Your task to perform on an android device: check out phone information Image 0: 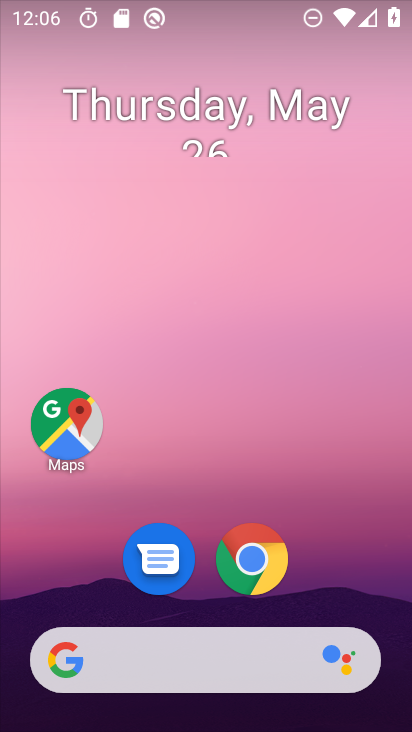
Step 0: drag from (342, 564) to (368, 250)
Your task to perform on an android device: check out phone information Image 1: 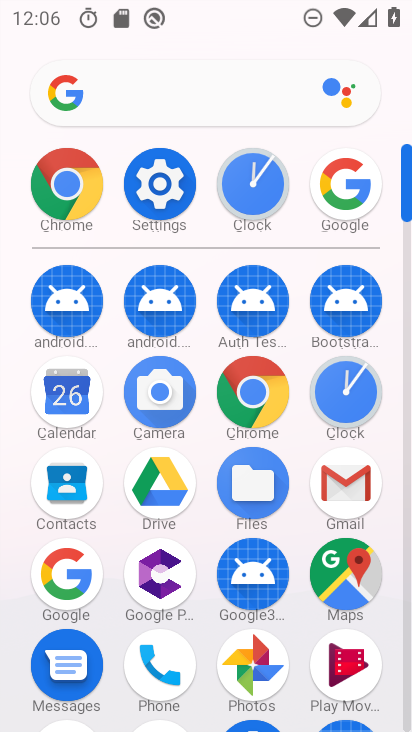
Step 1: drag from (186, 597) to (186, 303)
Your task to perform on an android device: check out phone information Image 2: 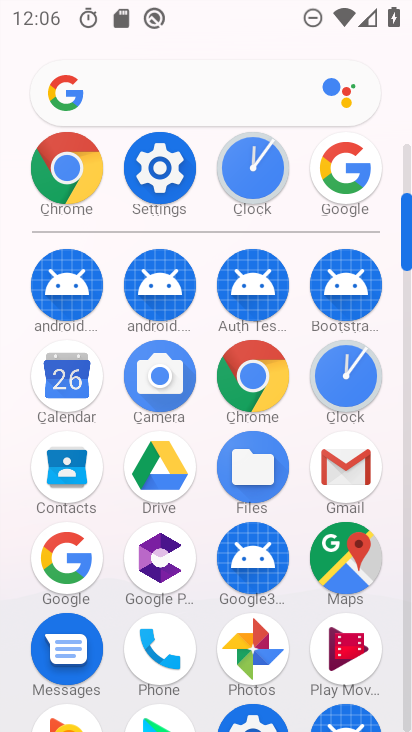
Step 2: click (148, 632)
Your task to perform on an android device: check out phone information Image 3: 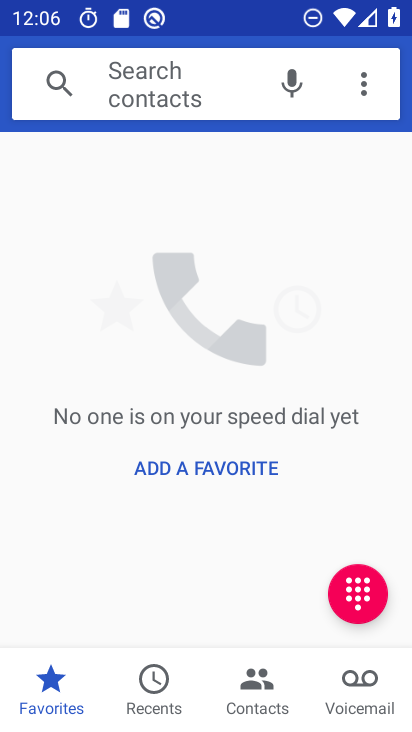
Step 3: click (358, 93)
Your task to perform on an android device: check out phone information Image 4: 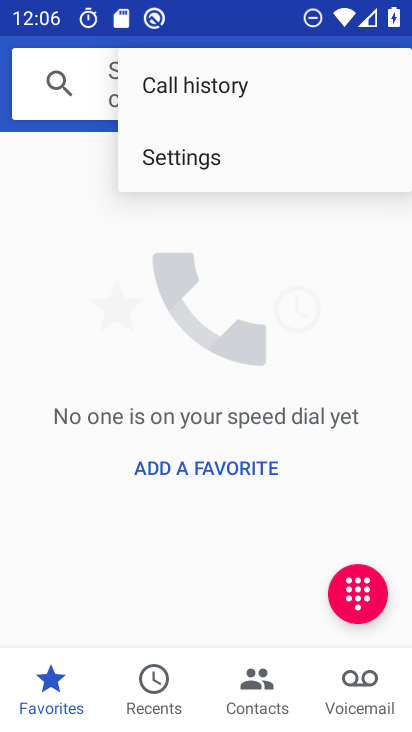
Step 4: click (199, 164)
Your task to perform on an android device: check out phone information Image 5: 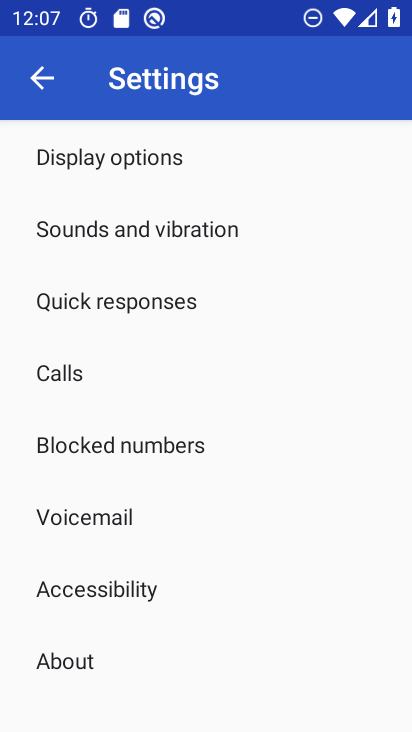
Step 5: task complete